Your task to perform on an android device: Search for a runner rug on Crate & Barrel Image 0: 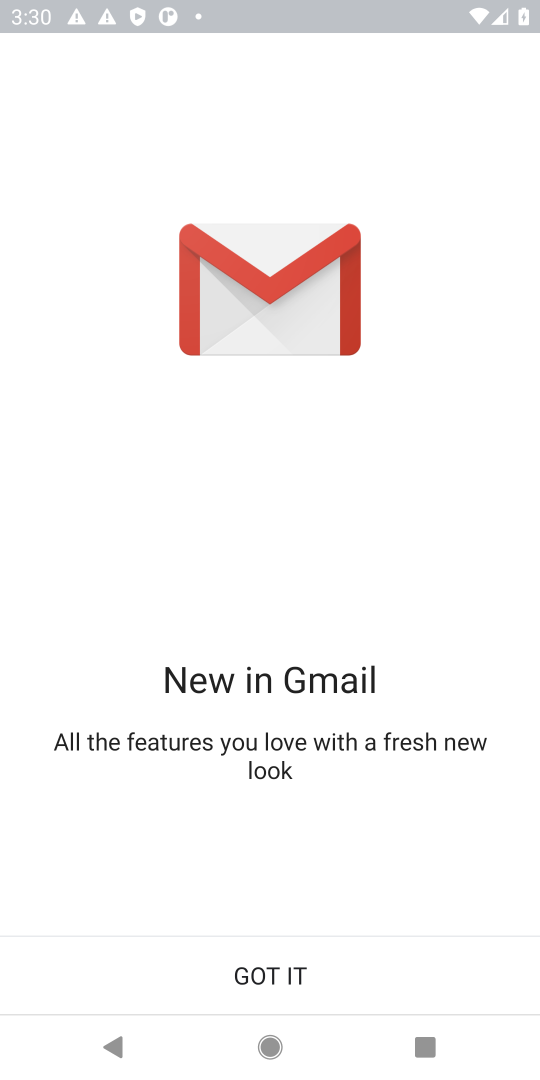
Step 0: press home button
Your task to perform on an android device: Search for a runner rug on Crate & Barrel Image 1: 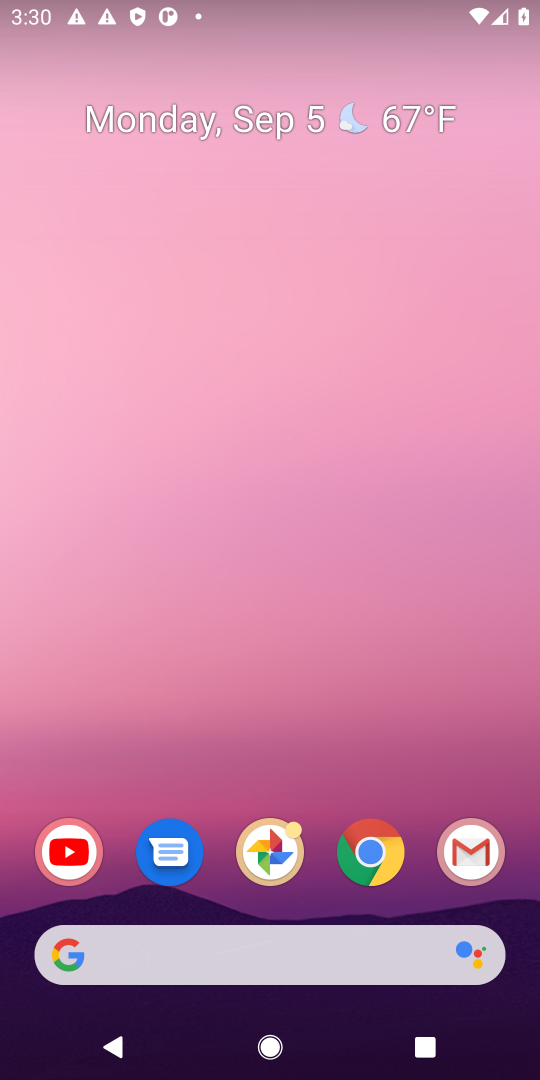
Step 1: click (377, 850)
Your task to perform on an android device: Search for a runner rug on Crate & Barrel Image 2: 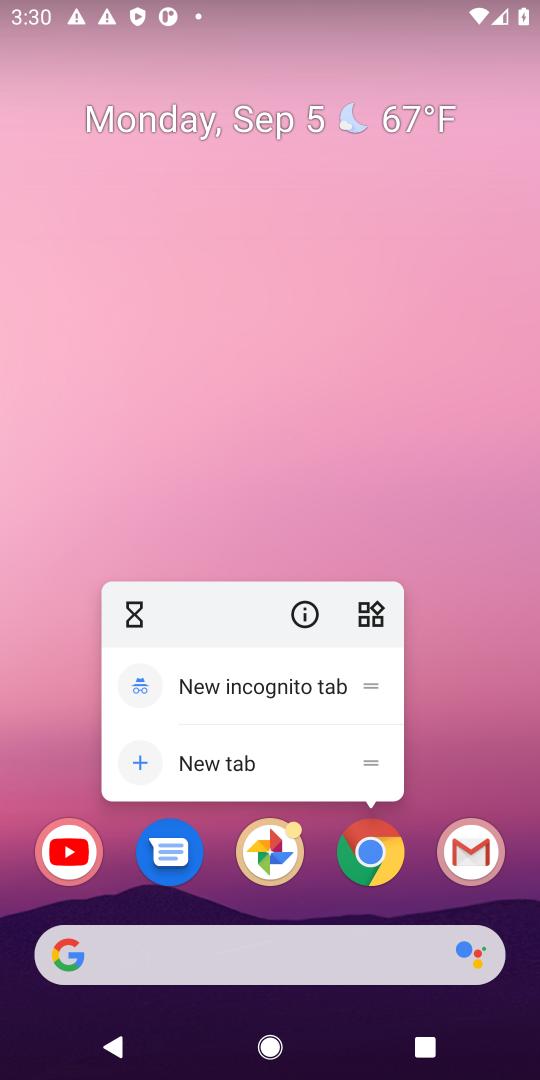
Step 2: click (377, 850)
Your task to perform on an android device: Search for a runner rug on Crate & Barrel Image 3: 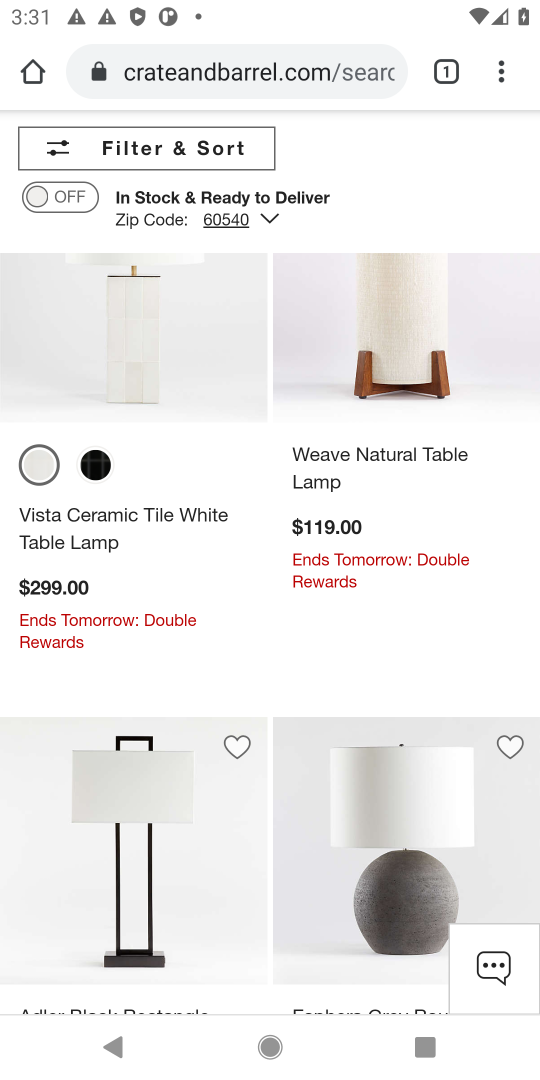
Step 3: click (362, 50)
Your task to perform on an android device: Search for a runner rug on Crate & Barrel Image 4: 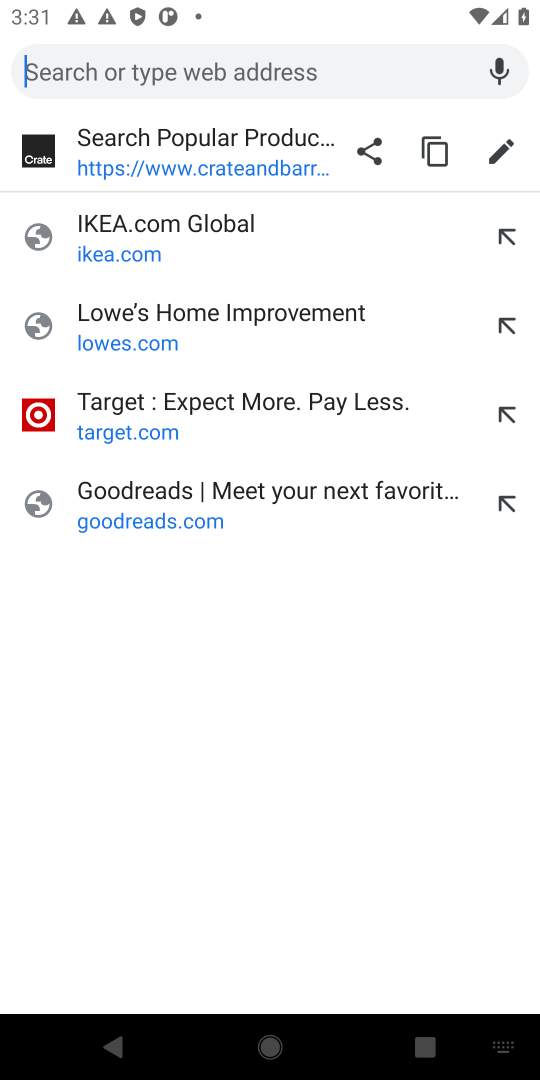
Step 4: type " Crate & Barrel"
Your task to perform on an android device: Search for a runner rug on Crate & Barrel Image 5: 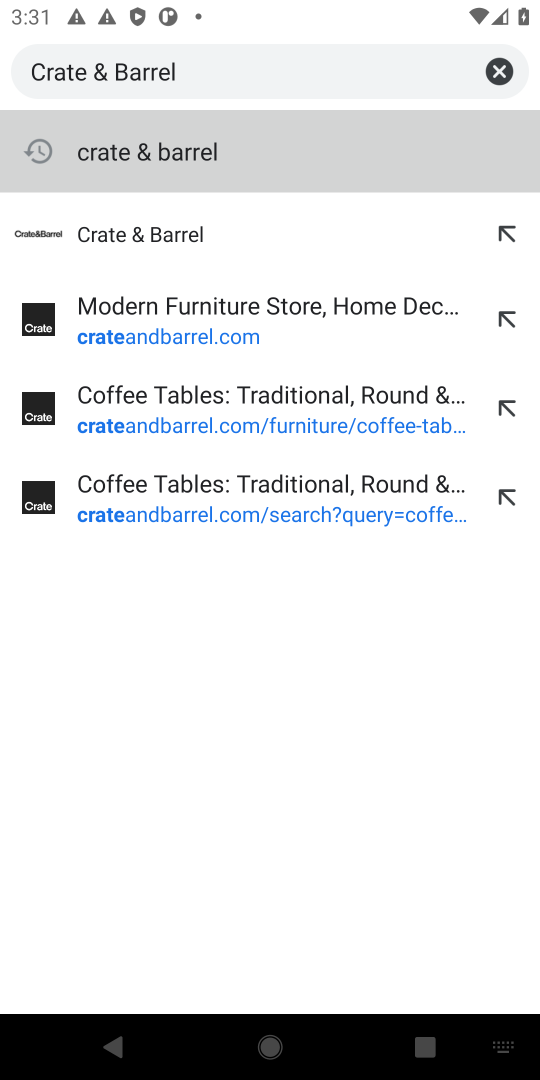
Step 5: click (159, 241)
Your task to perform on an android device: Search for a runner rug on Crate & Barrel Image 6: 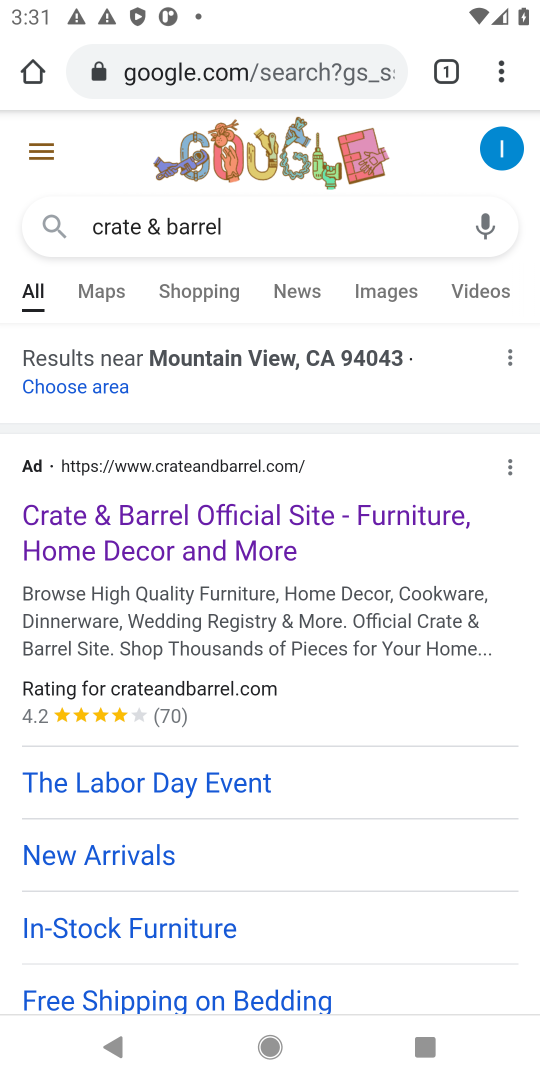
Step 6: click (142, 529)
Your task to perform on an android device: Search for a runner rug on Crate & Barrel Image 7: 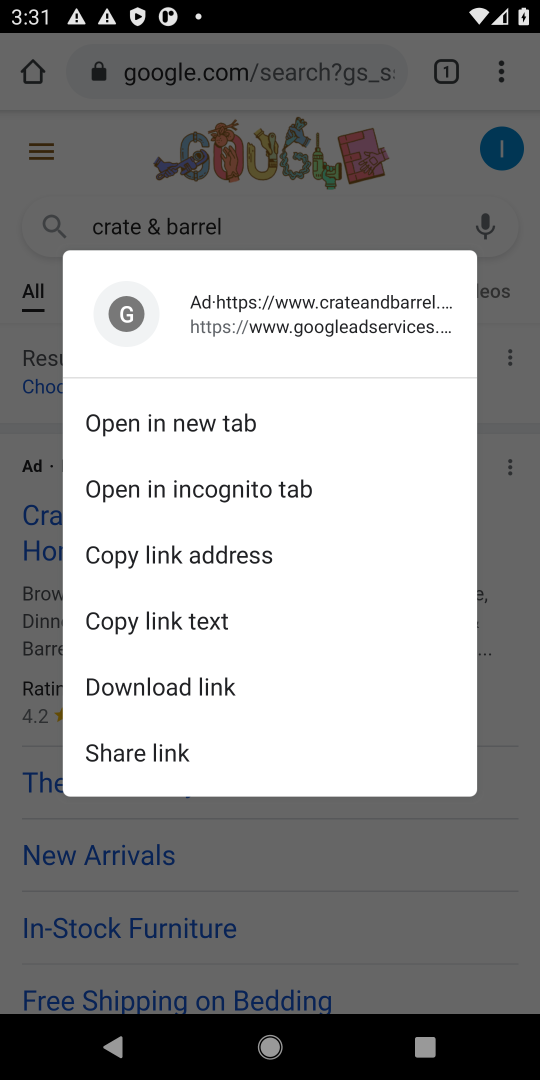
Step 7: click (3, 621)
Your task to perform on an android device: Search for a runner rug on Crate & Barrel Image 8: 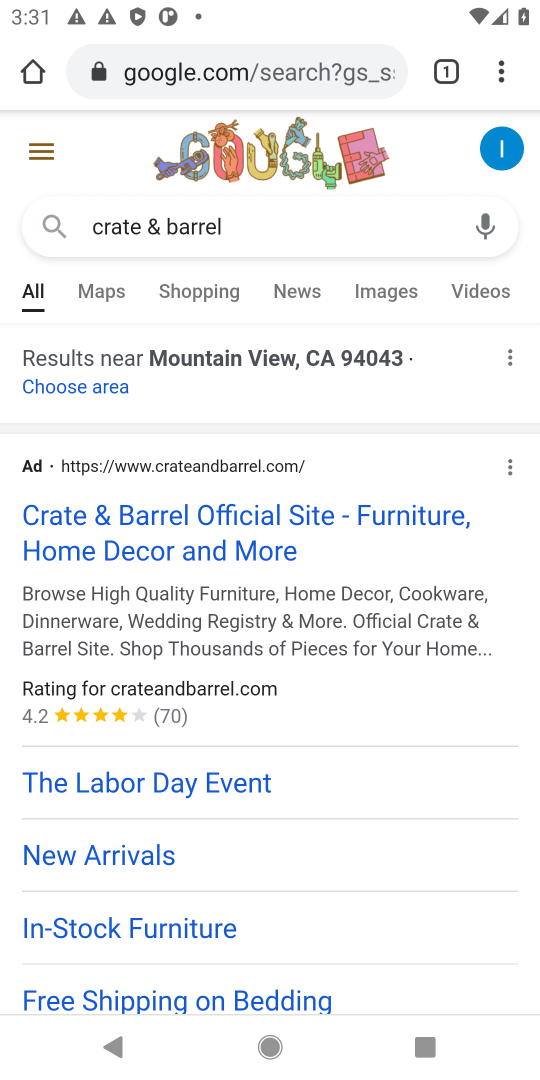
Step 8: click (142, 521)
Your task to perform on an android device: Search for a runner rug on Crate & Barrel Image 9: 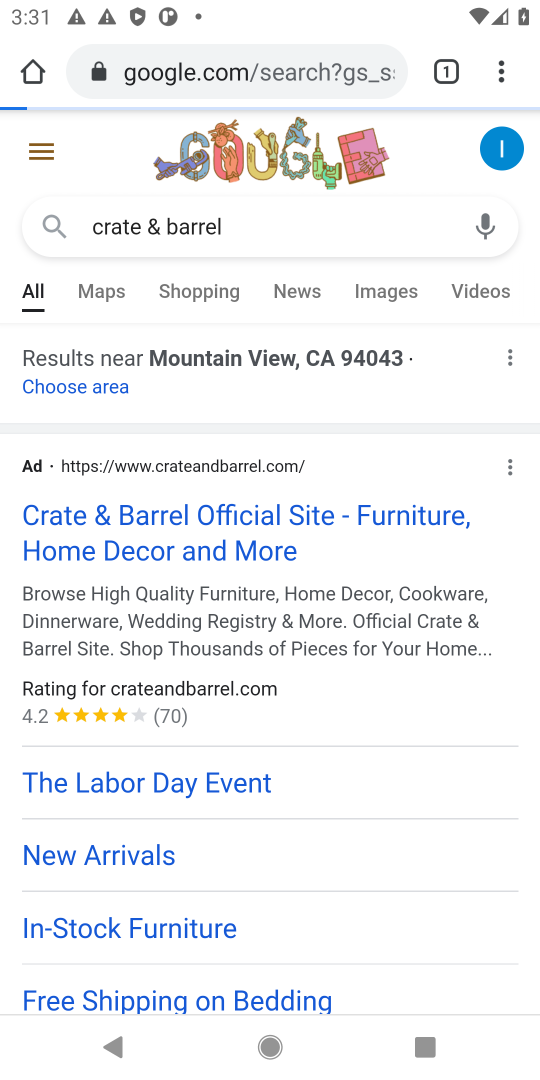
Step 9: click (274, 554)
Your task to perform on an android device: Search for a runner rug on Crate & Barrel Image 10: 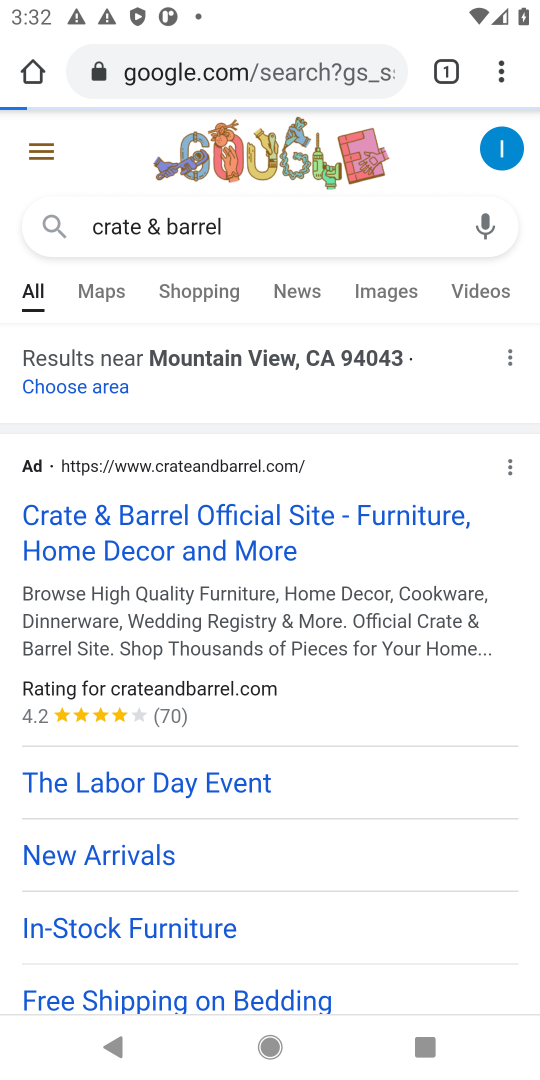
Step 10: click (290, 517)
Your task to perform on an android device: Search for a runner rug on Crate & Barrel Image 11: 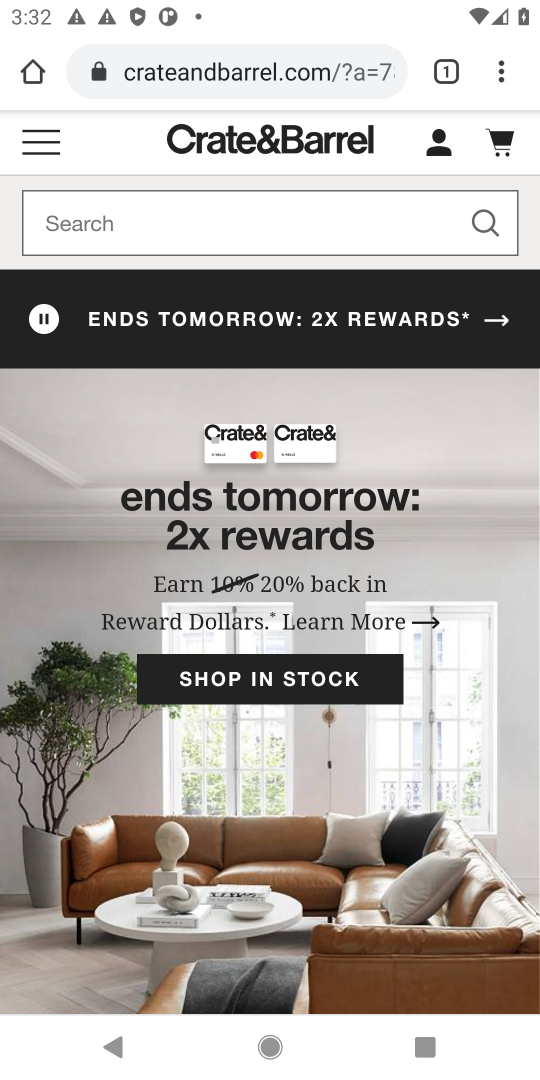
Step 11: click (82, 216)
Your task to perform on an android device: Search for a runner rug on Crate & Barrel Image 12: 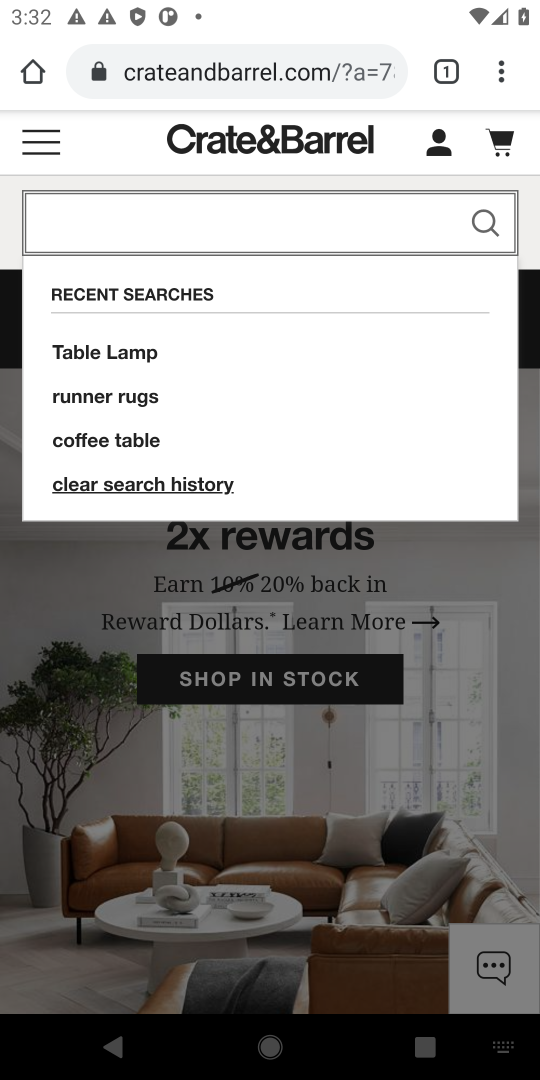
Step 12: click (109, 393)
Your task to perform on an android device: Search for a runner rug on Crate & Barrel Image 13: 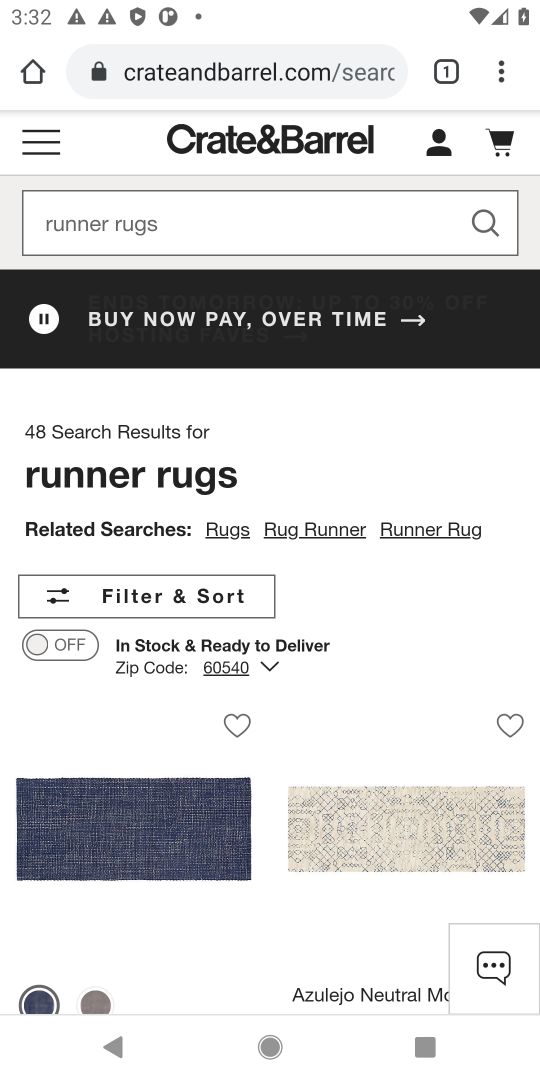
Step 13: task complete